Your task to perform on an android device: empty trash in the gmail app Image 0: 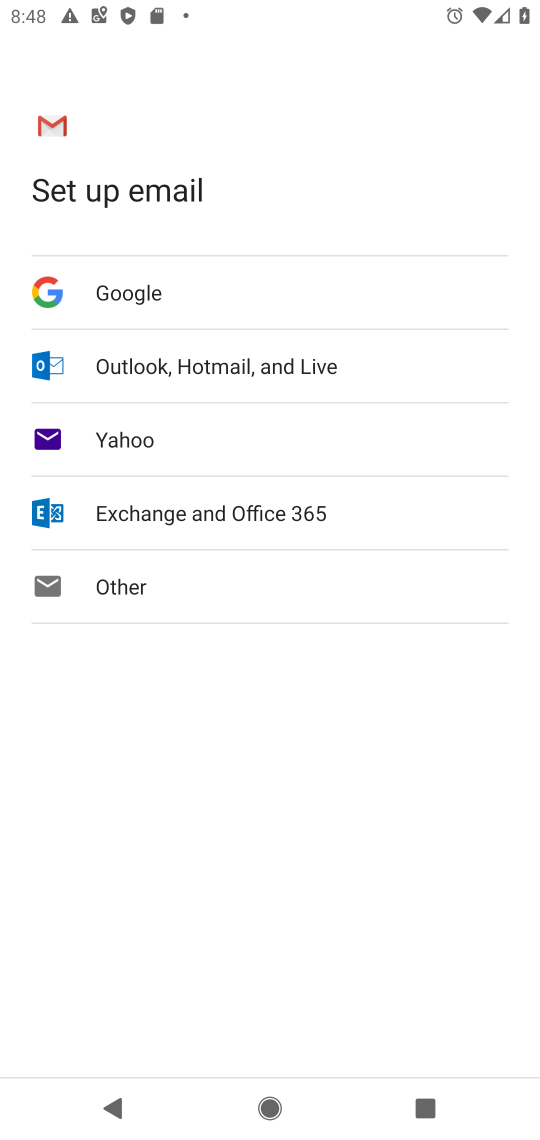
Step 0: press home button
Your task to perform on an android device: empty trash in the gmail app Image 1: 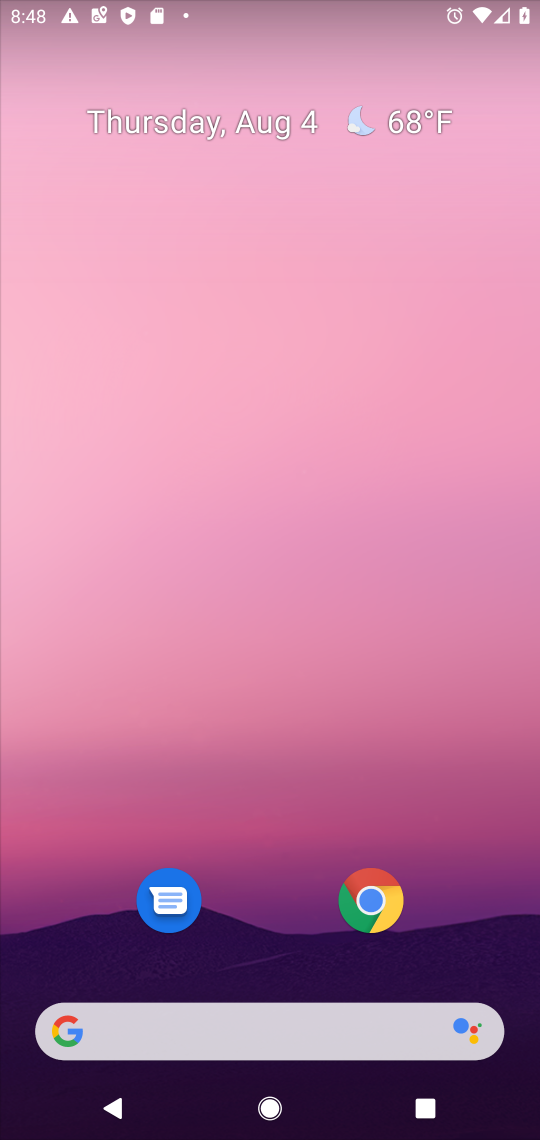
Step 1: drag from (220, 1035) to (357, 278)
Your task to perform on an android device: empty trash in the gmail app Image 2: 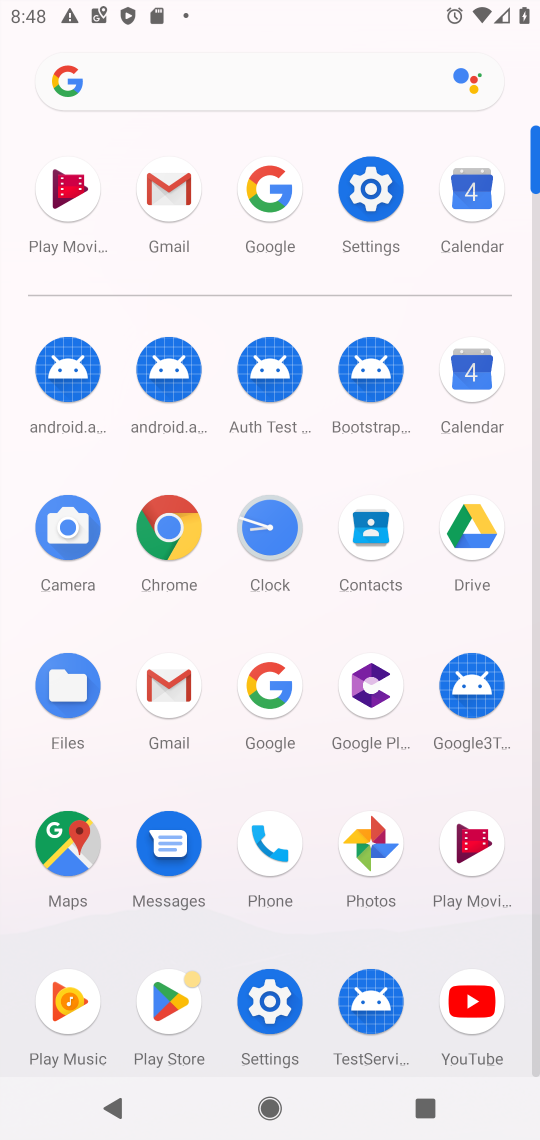
Step 2: click (169, 188)
Your task to perform on an android device: empty trash in the gmail app Image 3: 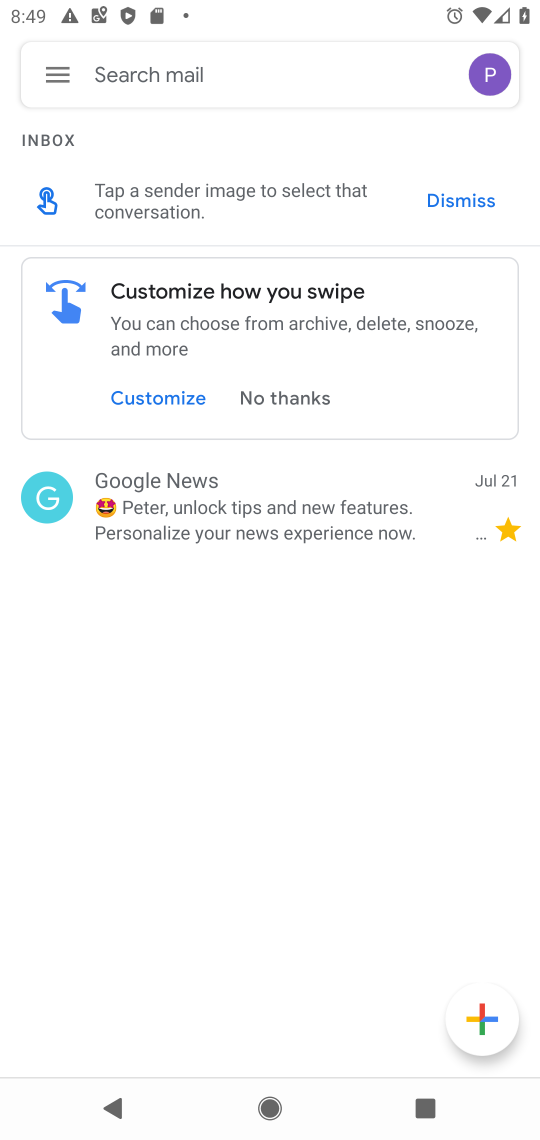
Step 3: click (60, 77)
Your task to perform on an android device: empty trash in the gmail app Image 4: 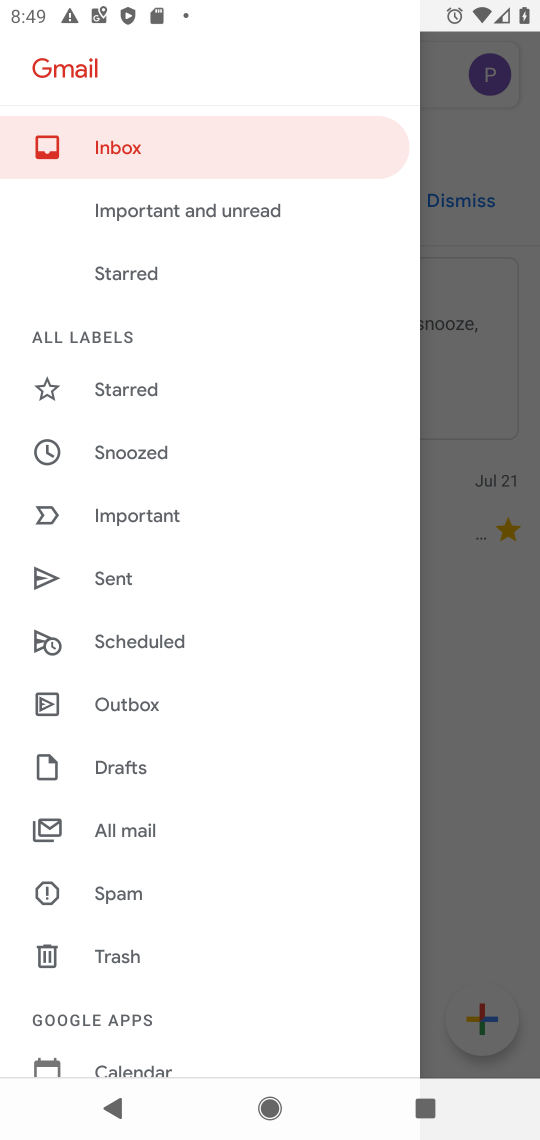
Step 4: click (118, 954)
Your task to perform on an android device: empty trash in the gmail app Image 5: 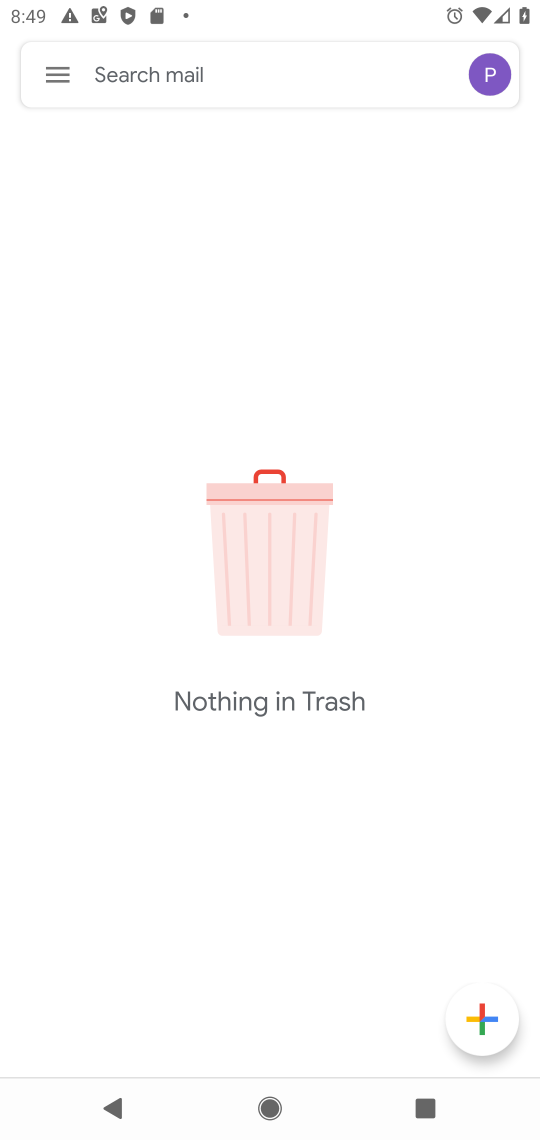
Step 5: task complete